Your task to perform on an android device: turn on wifi Image 0: 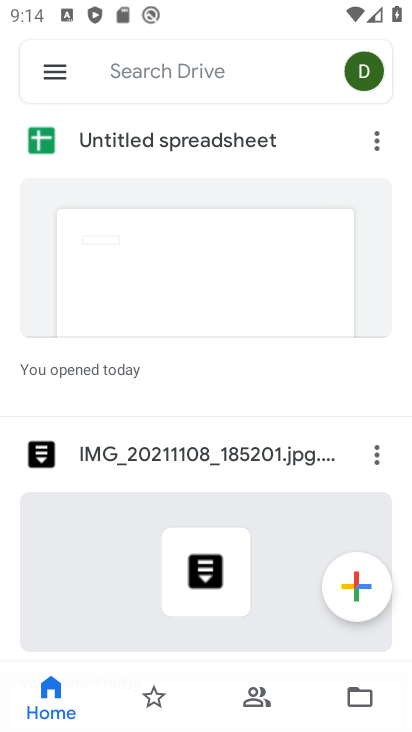
Step 0: press home button
Your task to perform on an android device: turn on wifi Image 1: 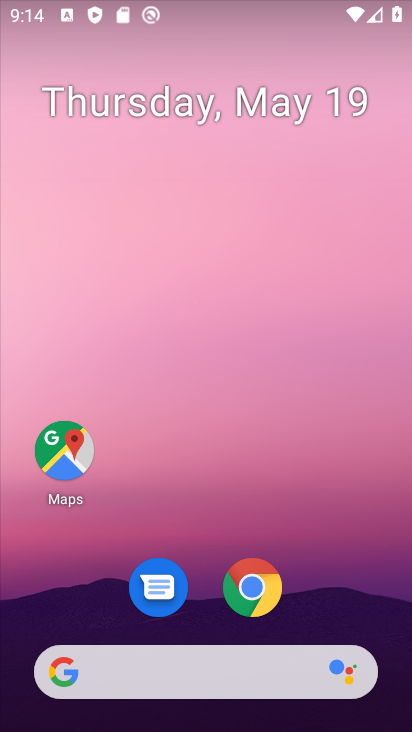
Step 1: drag from (327, 430) to (308, 61)
Your task to perform on an android device: turn on wifi Image 2: 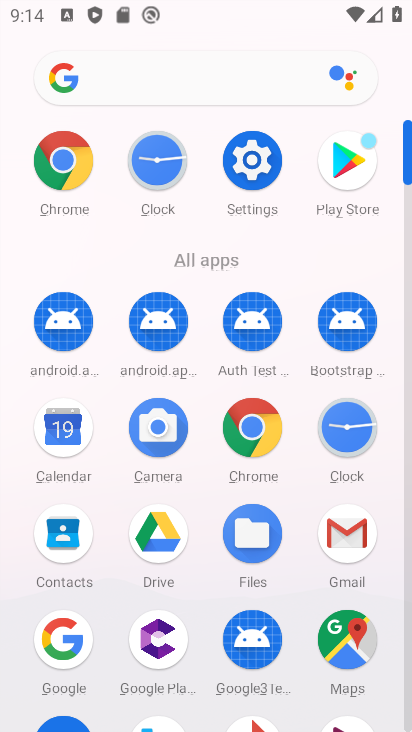
Step 2: click (256, 186)
Your task to perform on an android device: turn on wifi Image 3: 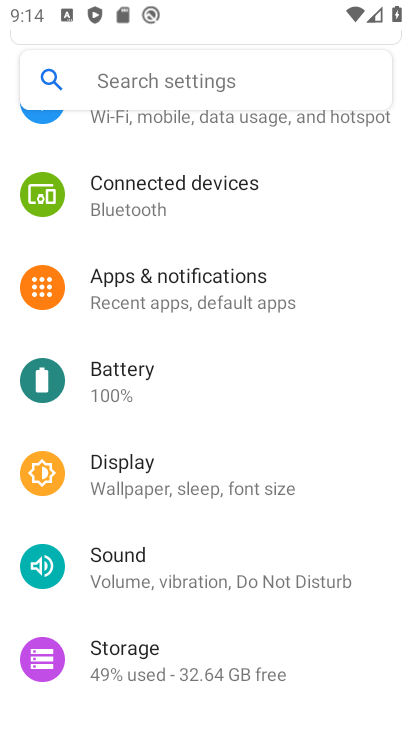
Step 3: drag from (254, 179) to (219, 627)
Your task to perform on an android device: turn on wifi Image 4: 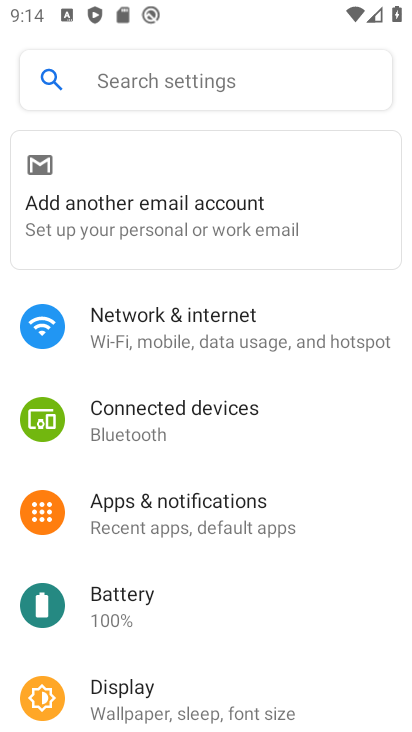
Step 4: click (174, 325)
Your task to perform on an android device: turn on wifi Image 5: 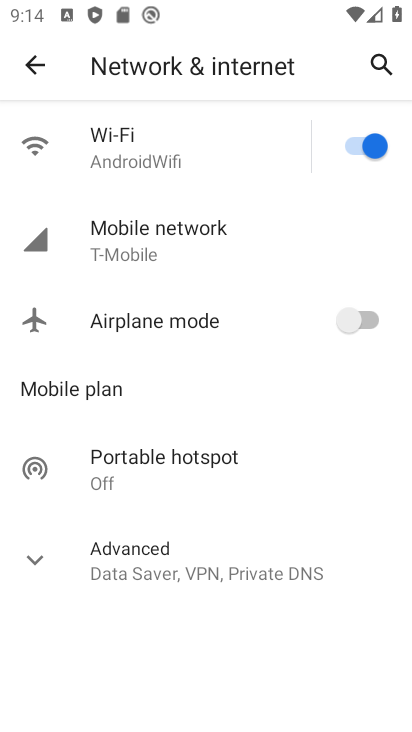
Step 5: task complete